Your task to perform on an android device: toggle improve location accuracy Image 0: 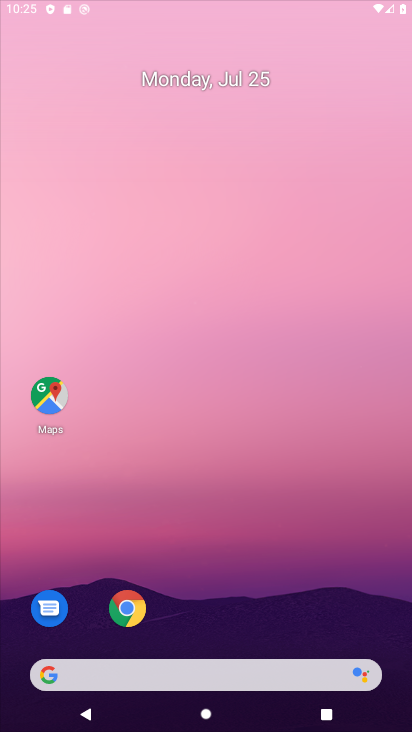
Step 0: drag from (300, 403) to (301, 228)
Your task to perform on an android device: toggle improve location accuracy Image 1: 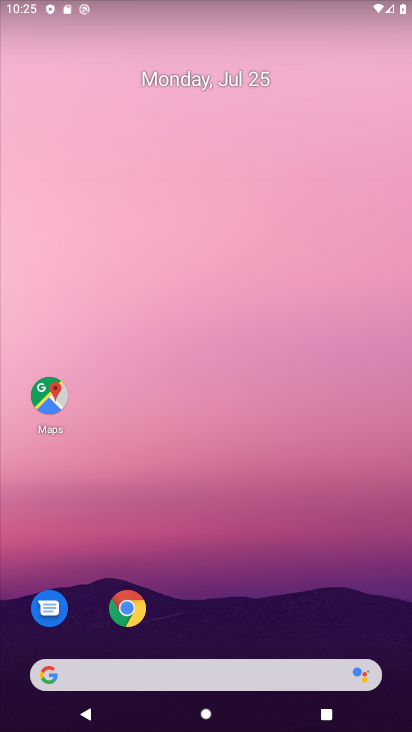
Step 1: drag from (305, 609) to (198, 278)
Your task to perform on an android device: toggle improve location accuracy Image 2: 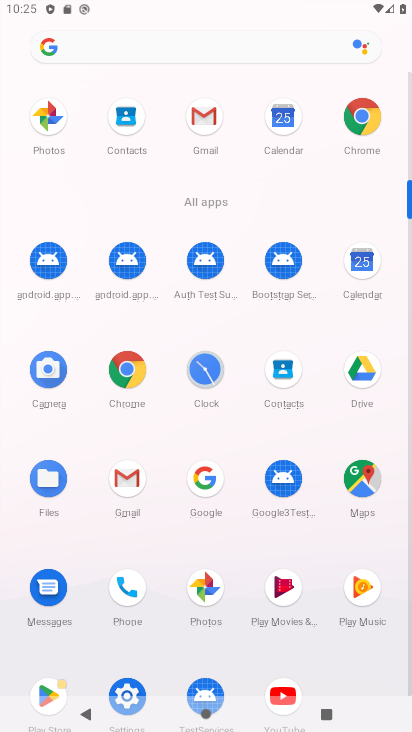
Step 2: drag from (302, 417) to (234, 127)
Your task to perform on an android device: toggle improve location accuracy Image 3: 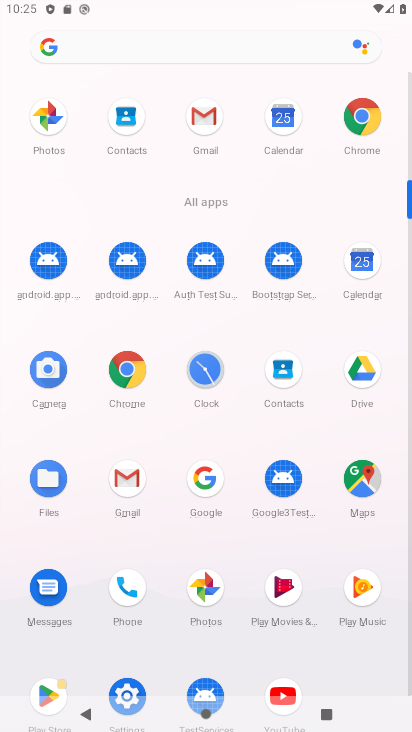
Step 3: click (134, 695)
Your task to perform on an android device: toggle improve location accuracy Image 4: 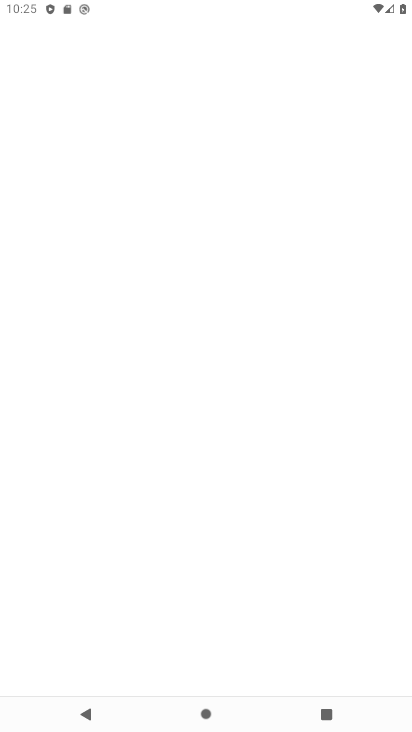
Step 4: click (127, 687)
Your task to perform on an android device: toggle improve location accuracy Image 5: 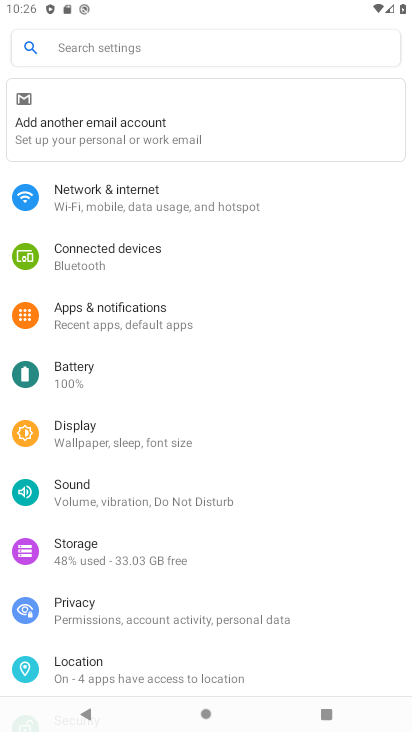
Step 5: click (99, 665)
Your task to perform on an android device: toggle improve location accuracy Image 6: 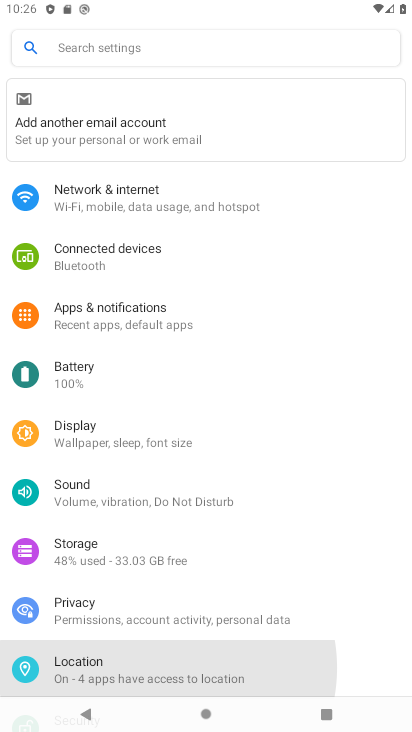
Step 6: click (99, 665)
Your task to perform on an android device: toggle improve location accuracy Image 7: 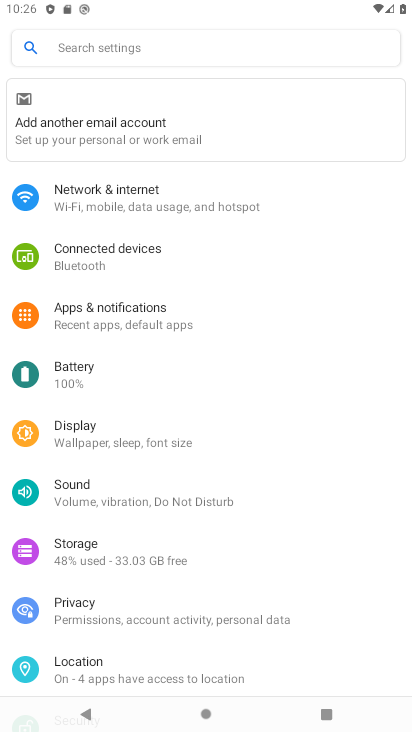
Step 7: click (98, 666)
Your task to perform on an android device: toggle improve location accuracy Image 8: 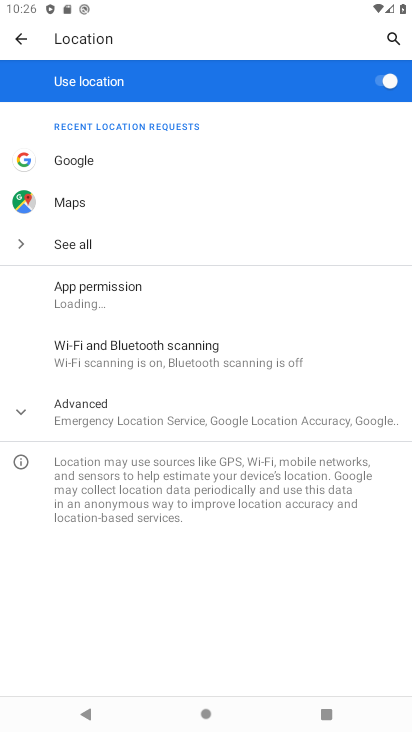
Step 8: click (104, 402)
Your task to perform on an android device: toggle improve location accuracy Image 9: 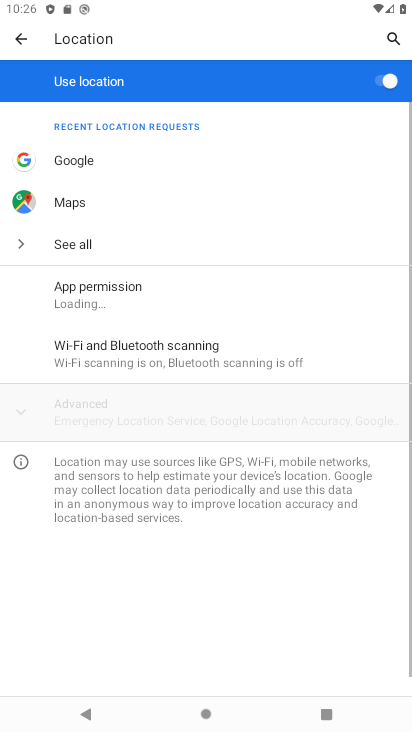
Step 9: click (104, 402)
Your task to perform on an android device: toggle improve location accuracy Image 10: 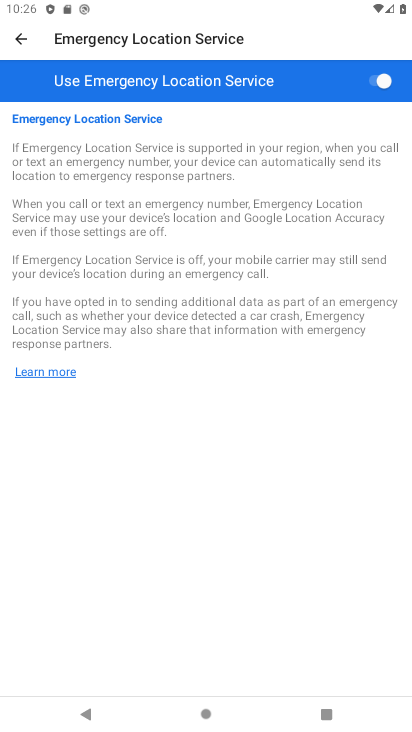
Step 10: click (17, 27)
Your task to perform on an android device: toggle improve location accuracy Image 11: 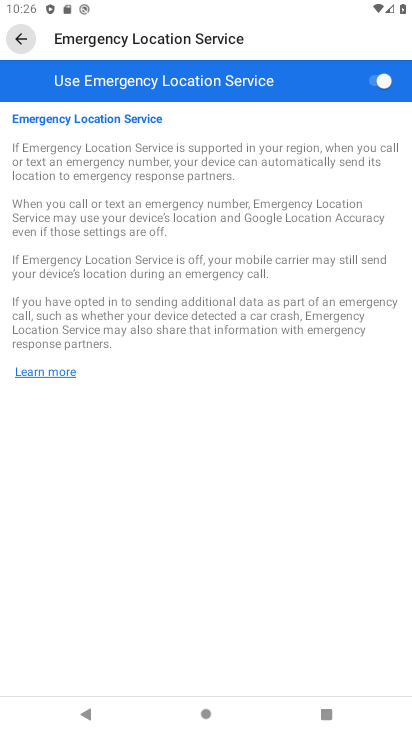
Step 11: click (17, 30)
Your task to perform on an android device: toggle improve location accuracy Image 12: 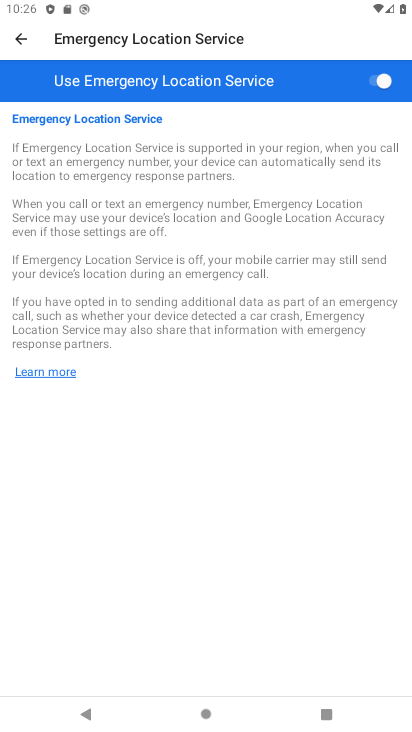
Step 12: click (17, 30)
Your task to perform on an android device: toggle improve location accuracy Image 13: 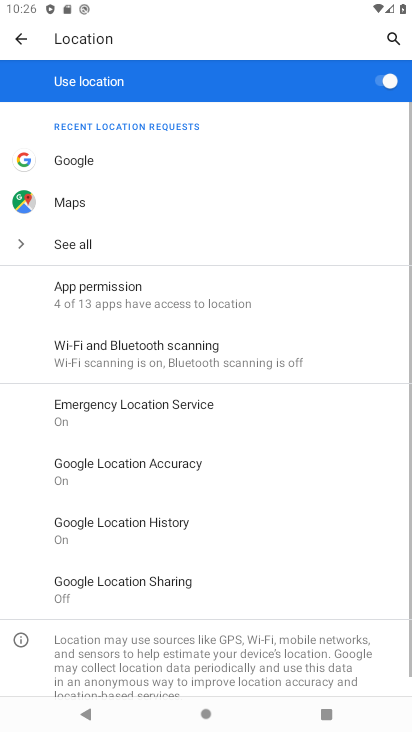
Step 13: click (132, 458)
Your task to perform on an android device: toggle improve location accuracy Image 14: 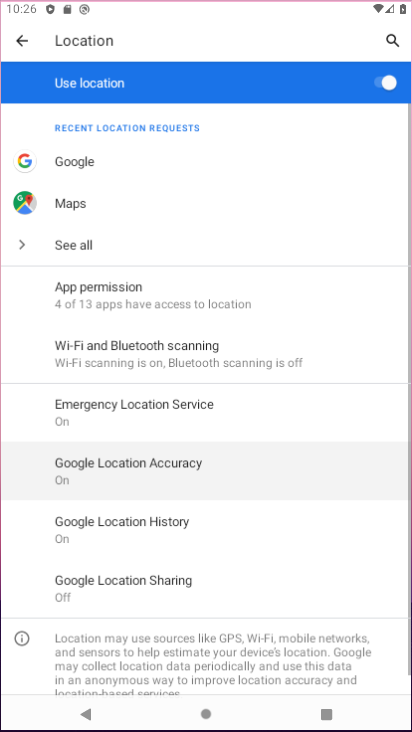
Step 14: click (132, 458)
Your task to perform on an android device: toggle improve location accuracy Image 15: 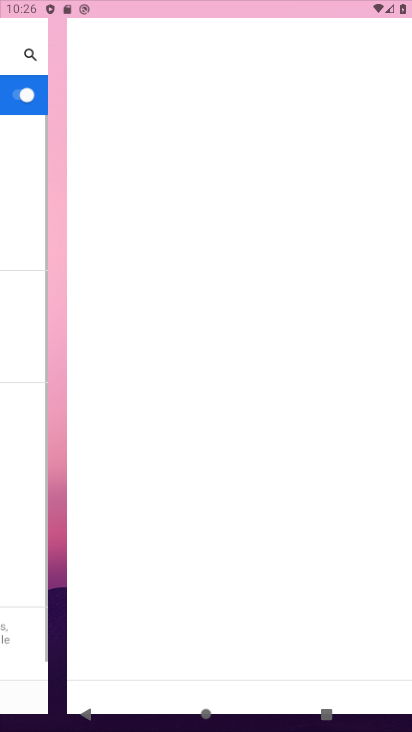
Step 15: click (132, 458)
Your task to perform on an android device: toggle improve location accuracy Image 16: 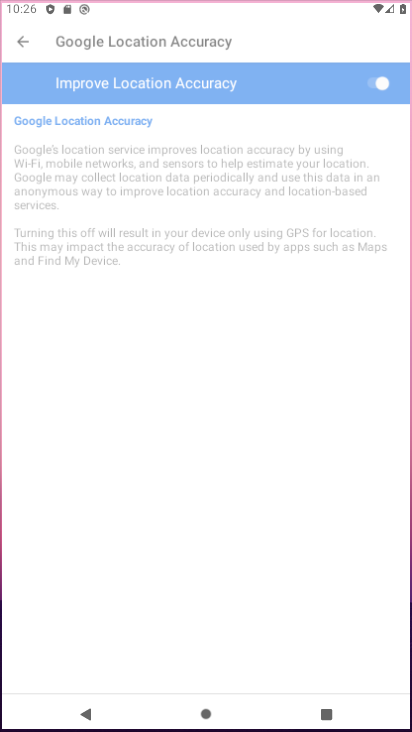
Step 16: click (133, 457)
Your task to perform on an android device: toggle improve location accuracy Image 17: 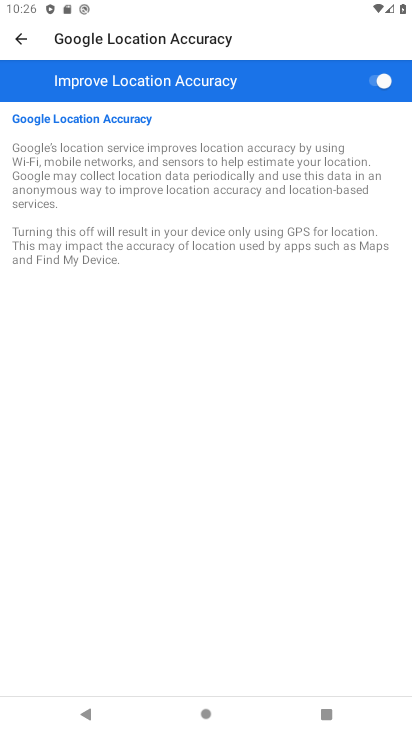
Step 17: click (380, 82)
Your task to perform on an android device: toggle improve location accuracy Image 18: 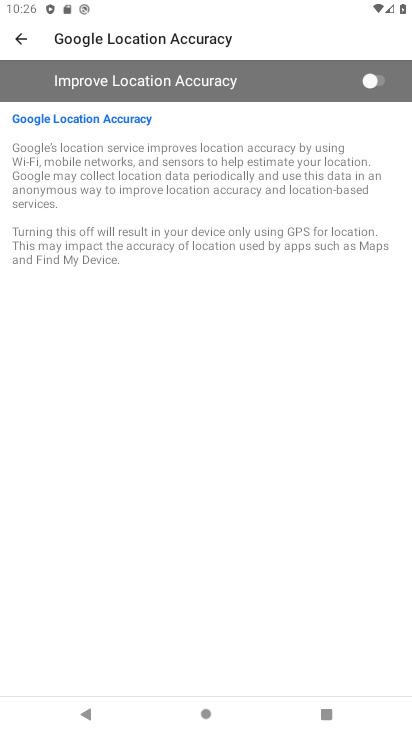
Step 18: click (18, 46)
Your task to perform on an android device: toggle improve location accuracy Image 19: 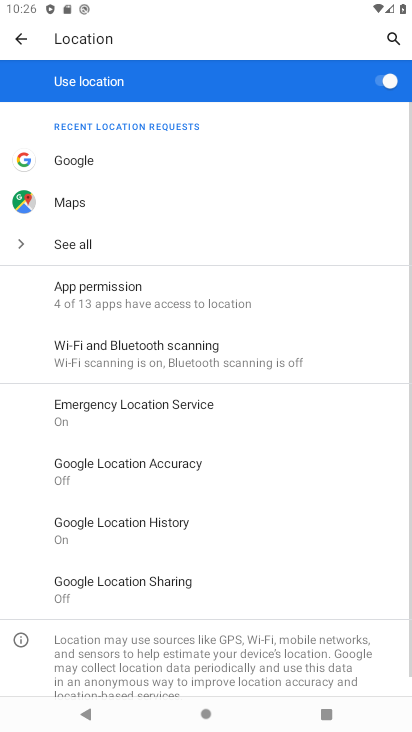
Step 19: click (121, 470)
Your task to perform on an android device: toggle improve location accuracy Image 20: 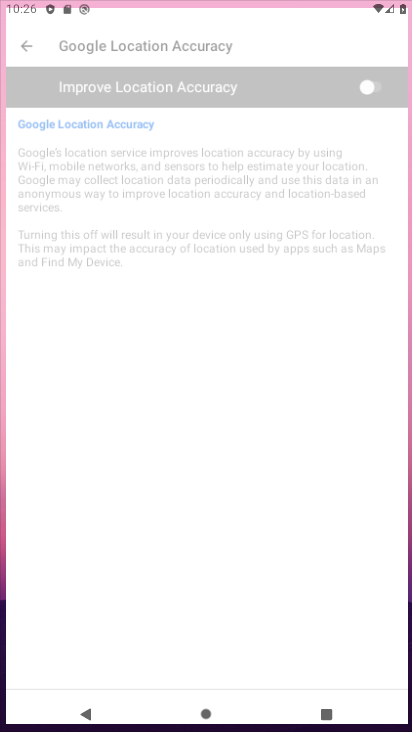
Step 20: click (124, 466)
Your task to perform on an android device: toggle improve location accuracy Image 21: 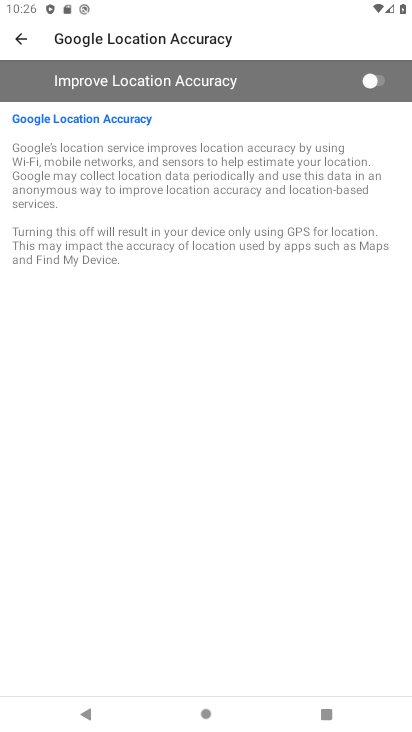
Step 21: click (382, 86)
Your task to perform on an android device: toggle improve location accuracy Image 22: 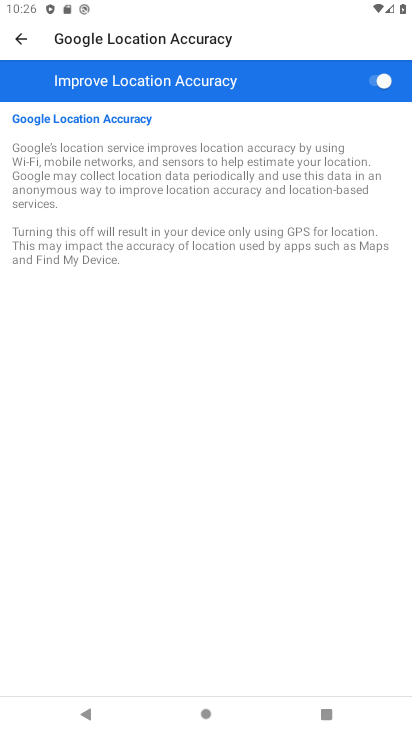
Step 22: task complete